Your task to perform on an android device: Go to Reddit.com Image 0: 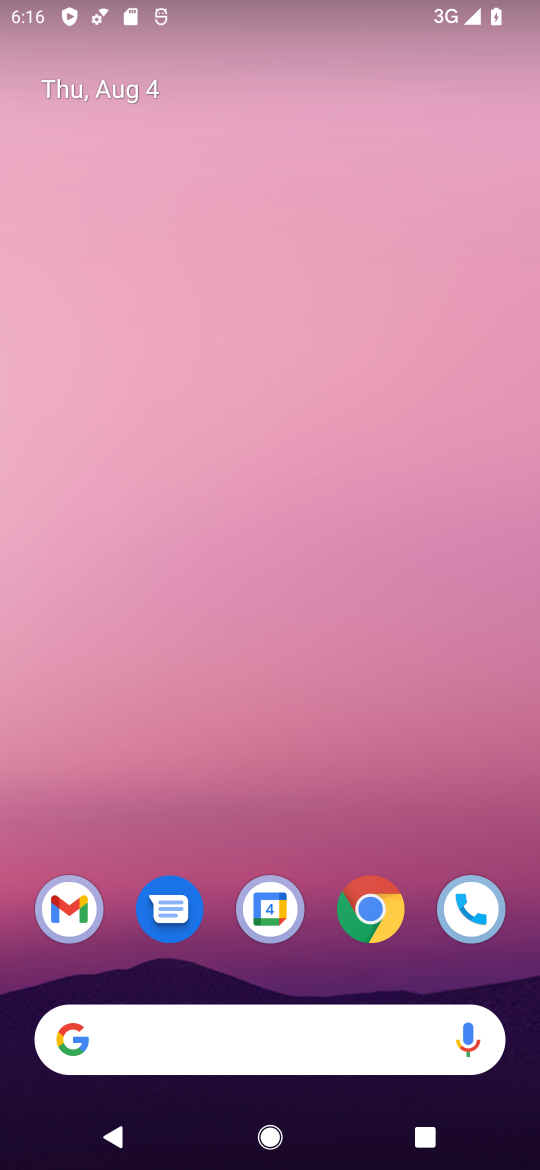
Step 0: drag from (268, 713) to (503, 4)
Your task to perform on an android device: Go to Reddit.com Image 1: 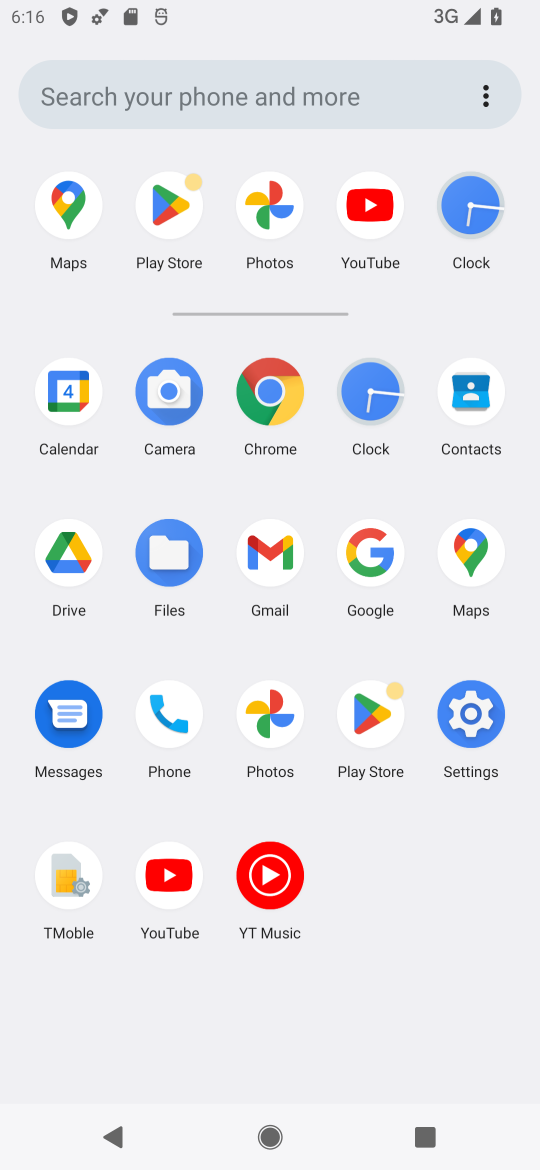
Step 1: click (262, 412)
Your task to perform on an android device: Go to Reddit.com Image 2: 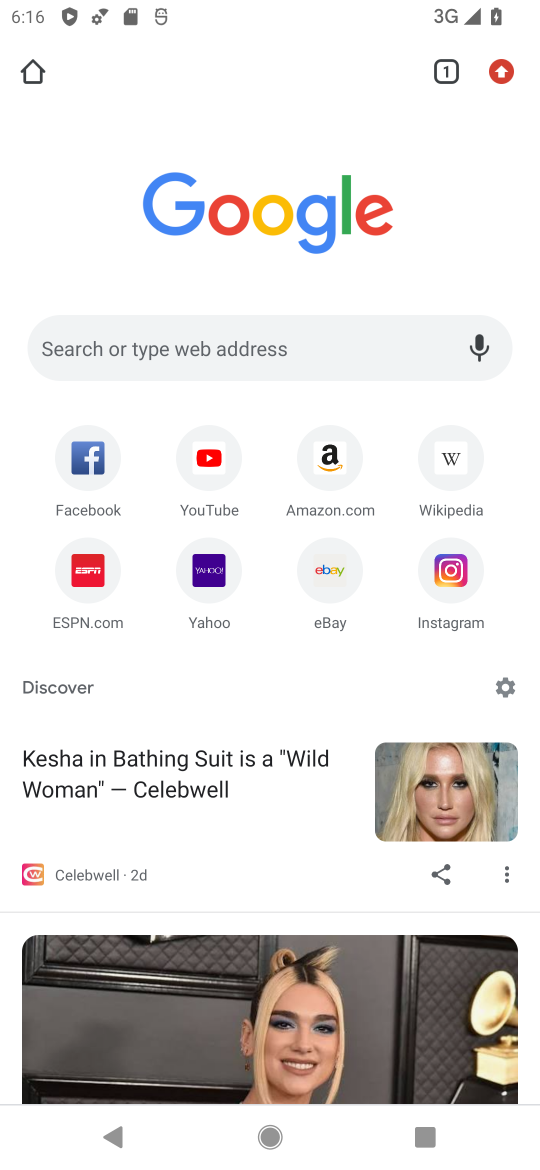
Step 2: click (220, 369)
Your task to perform on an android device: Go to Reddit.com Image 3: 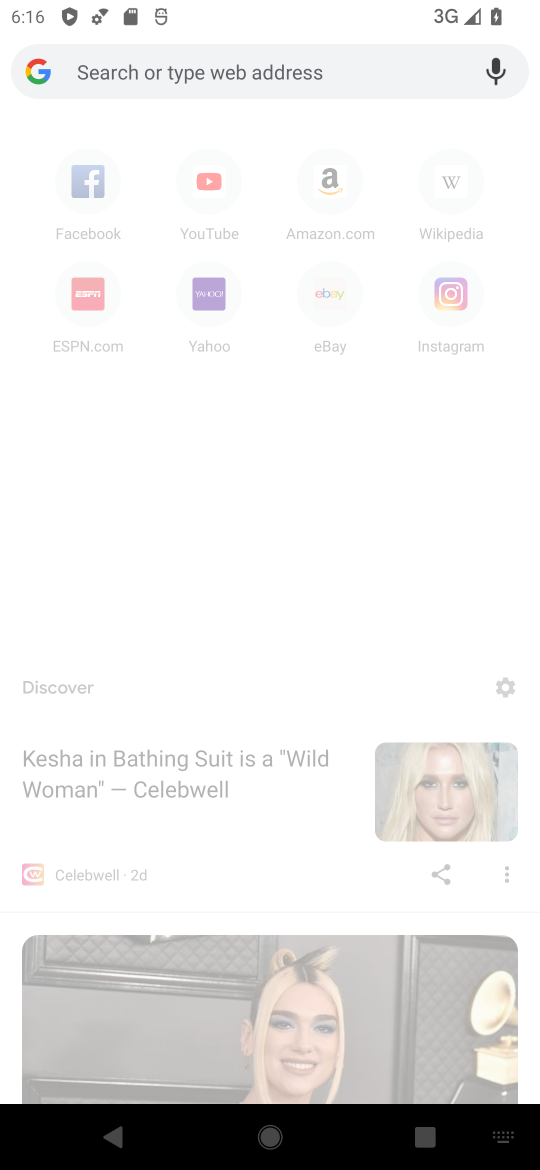
Step 3: type "Reddit.com"
Your task to perform on an android device: Go to Reddit.com Image 4: 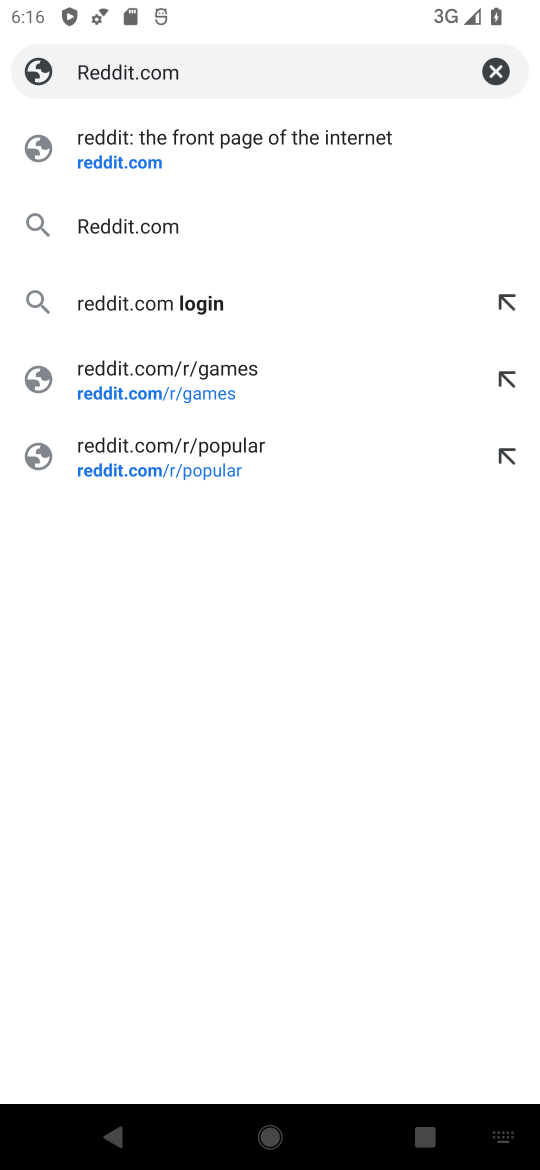
Step 4: click (106, 154)
Your task to perform on an android device: Go to Reddit.com Image 5: 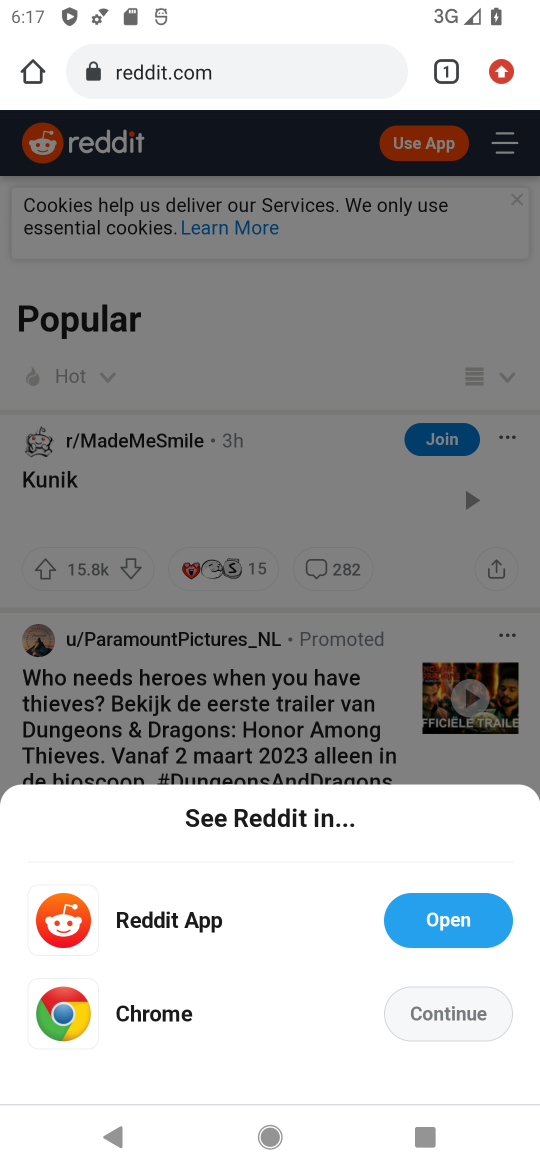
Step 5: task complete